Your task to perform on an android device: clear all cookies in the chrome app Image 0: 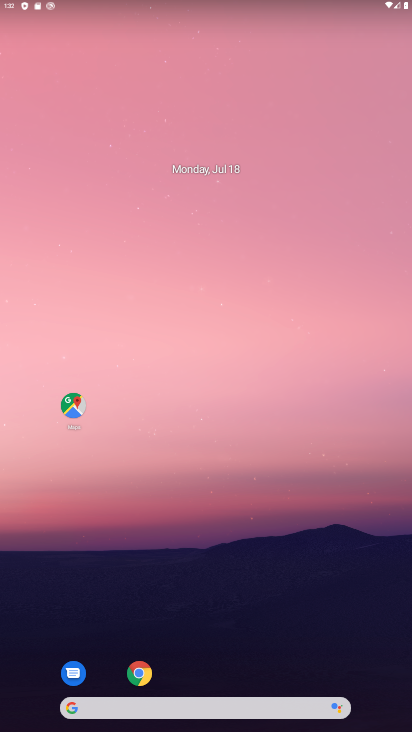
Step 0: click (139, 675)
Your task to perform on an android device: clear all cookies in the chrome app Image 1: 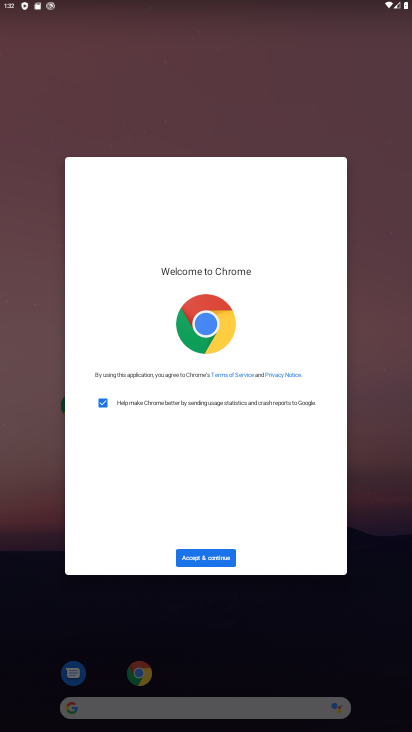
Step 1: click (197, 559)
Your task to perform on an android device: clear all cookies in the chrome app Image 2: 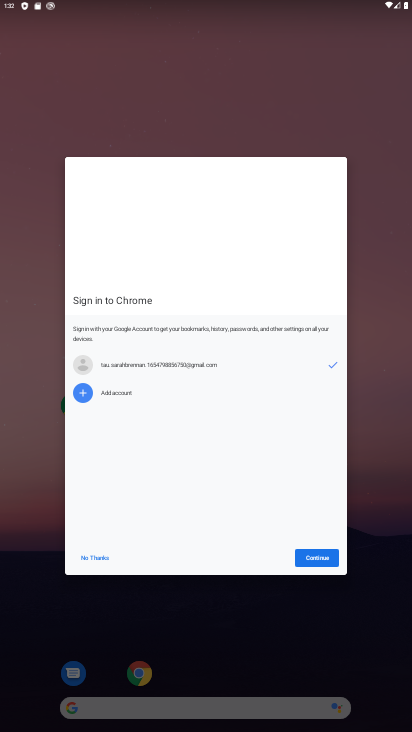
Step 2: click (318, 552)
Your task to perform on an android device: clear all cookies in the chrome app Image 3: 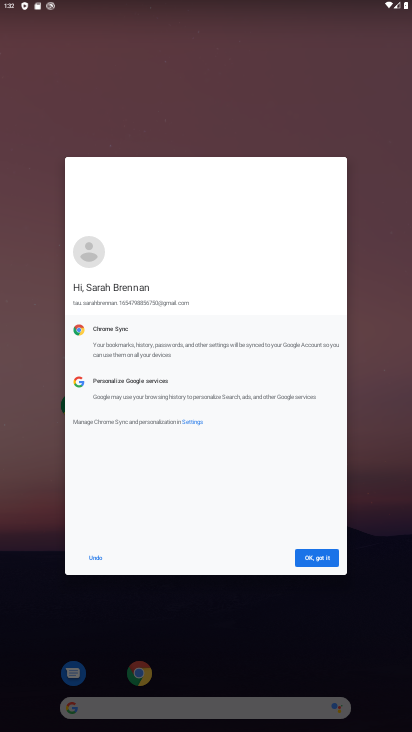
Step 3: click (321, 553)
Your task to perform on an android device: clear all cookies in the chrome app Image 4: 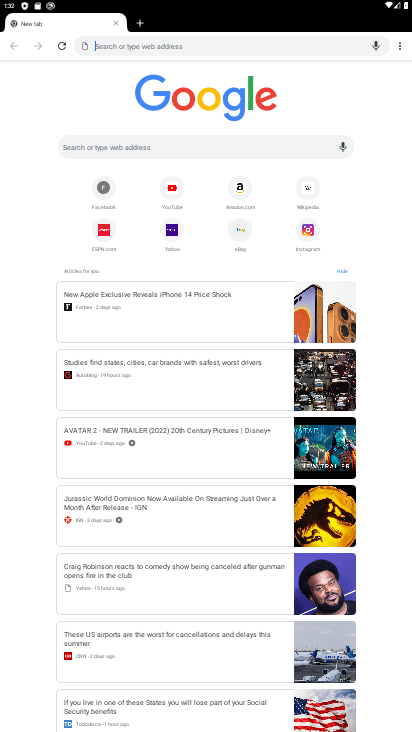
Step 4: click (400, 43)
Your task to perform on an android device: clear all cookies in the chrome app Image 5: 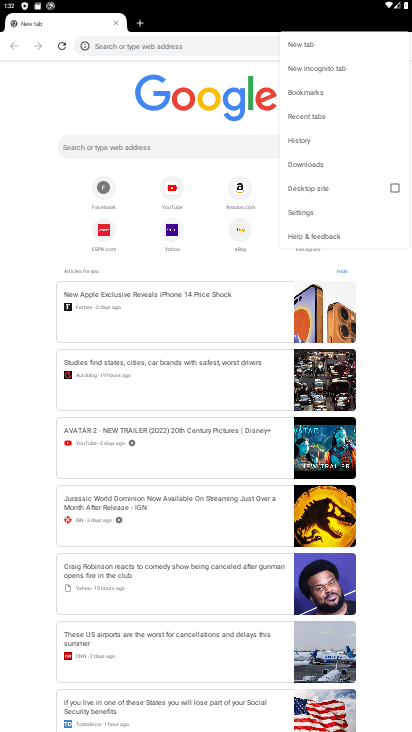
Step 5: click (310, 213)
Your task to perform on an android device: clear all cookies in the chrome app Image 6: 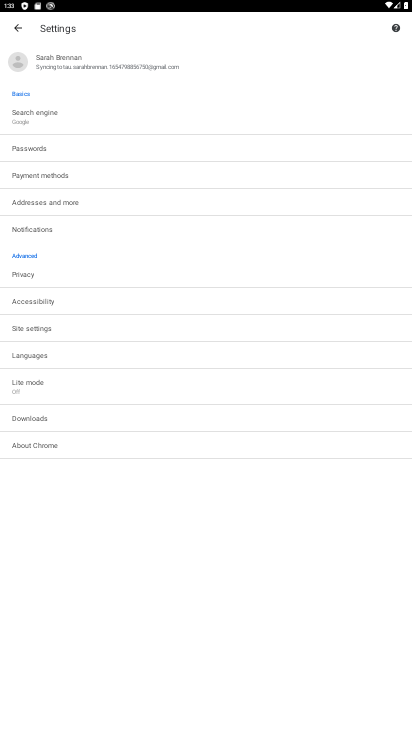
Step 6: click (25, 275)
Your task to perform on an android device: clear all cookies in the chrome app Image 7: 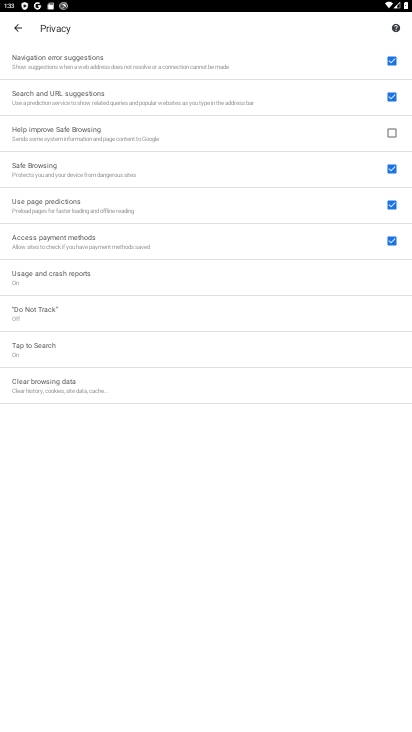
Step 7: click (71, 391)
Your task to perform on an android device: clear all cookies in the chrome app Image 8: 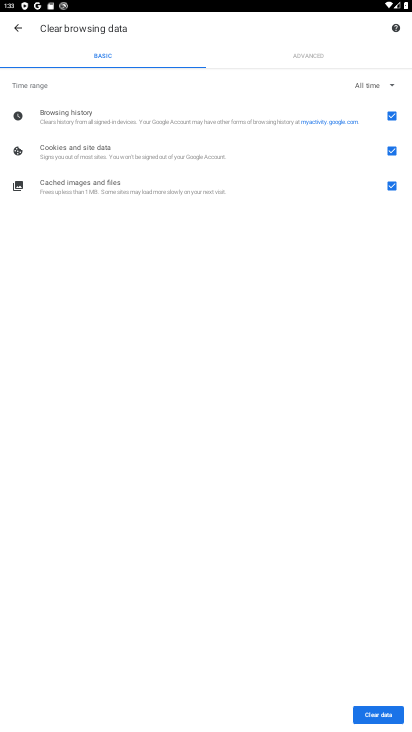
Step 8: click (390, 121)
Your task to perform on an android device: clear all cookies in the chrome app Image 9: 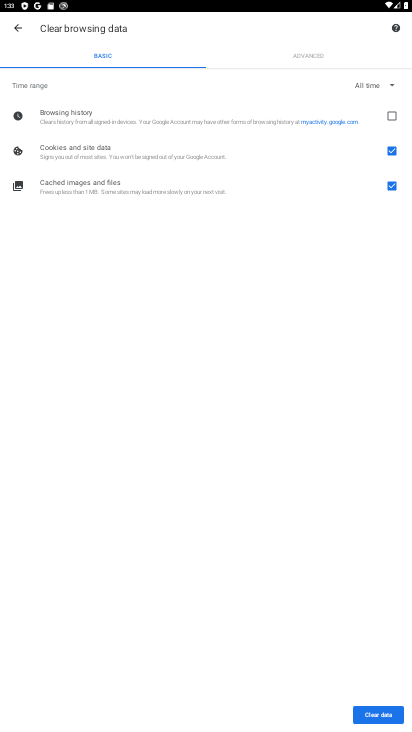
Step 9: click (394, 188)
Your task to perform on an android device: clear all cookies in the chrome app Image 10: 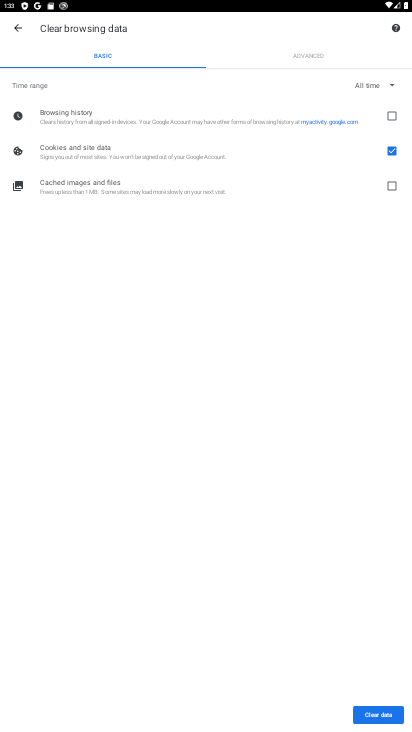
Step 10: click (361, 713)
Your task to perform on an android device: clear all cookies in the chrome app Image 11: 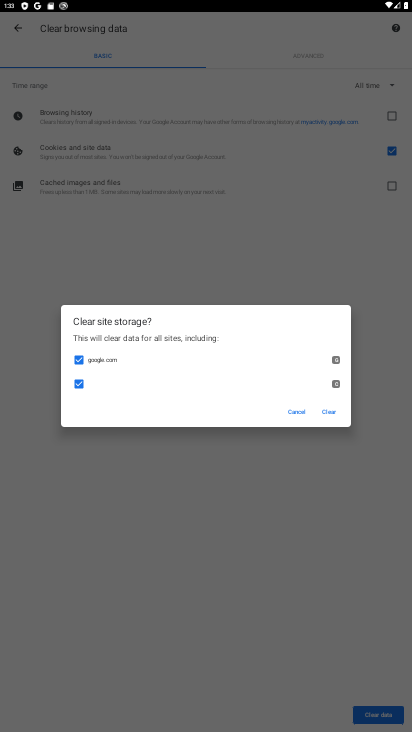
Step 11: click (332, 411)
Your task to perform on an android device: clear all cookies in the chrome app Image 12: 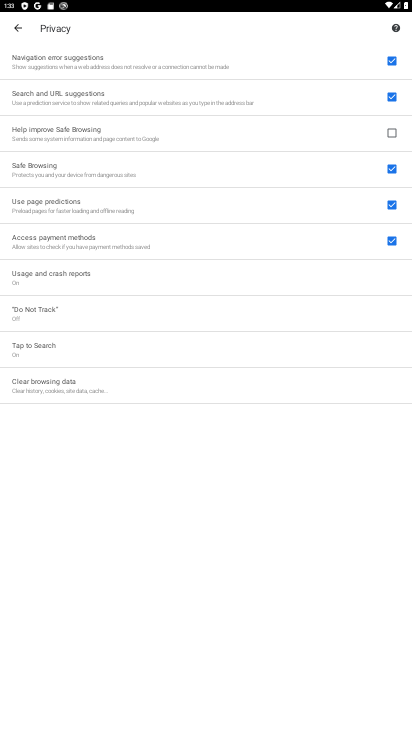
Step 12: task complete